Your task to perform on an android device: turn off sleep mode Image 0: 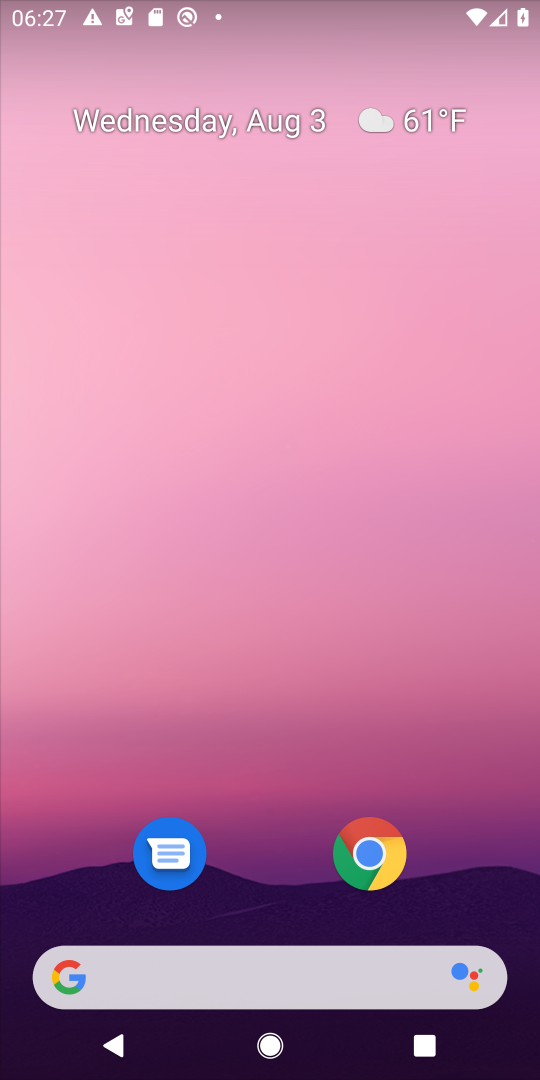
Step 0: drag from (259, 929) to (252, 4)
Your task to perform on an android device: turn off sleep mode Image 1: 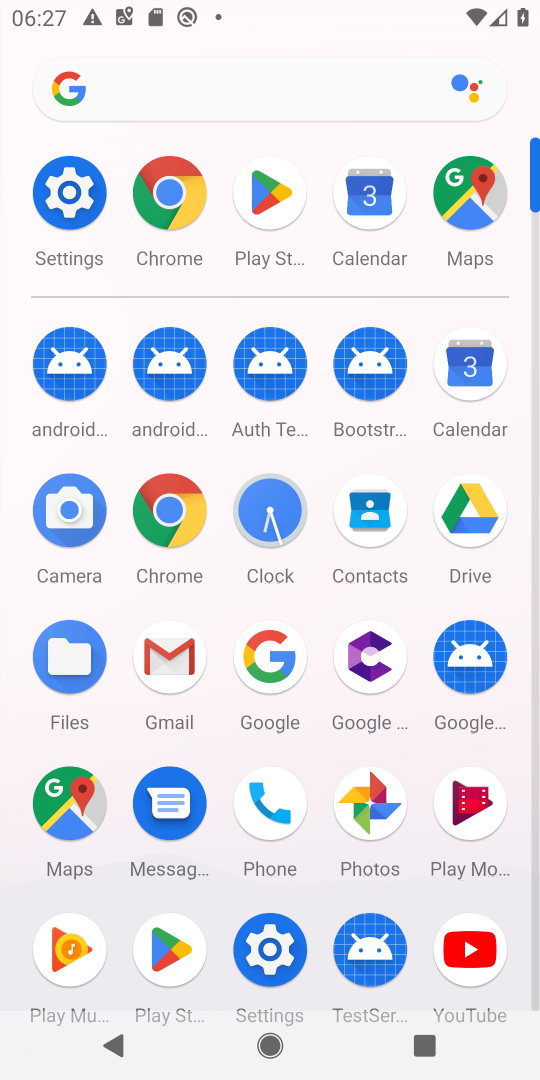
Step 1: click (57, 184)
Your task to perform on an android device: turn off sleep mode Image 2: 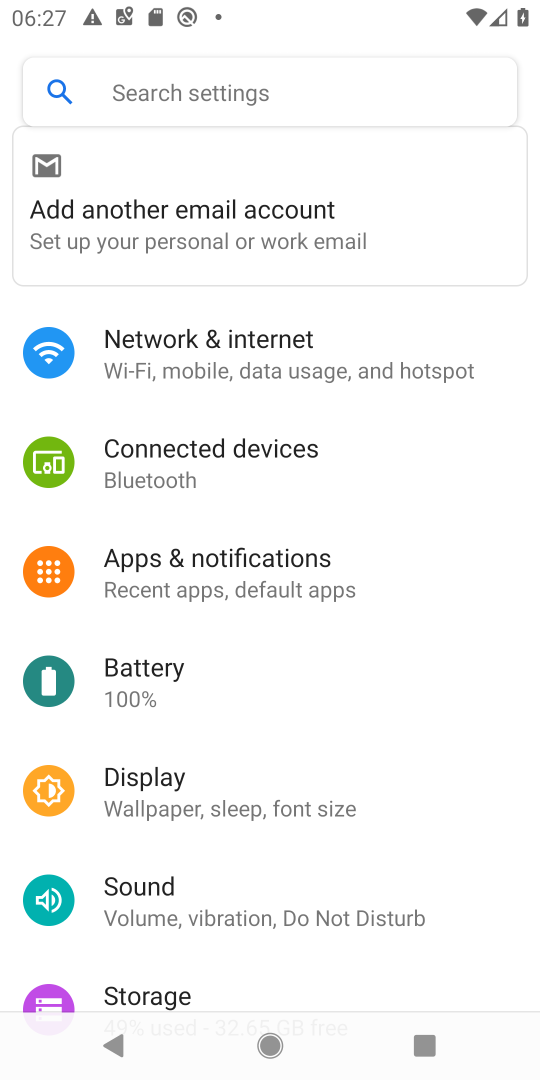
Step 2: click (137, 673)
Your task to perform on an android device: turn off sleep mode Image 3: 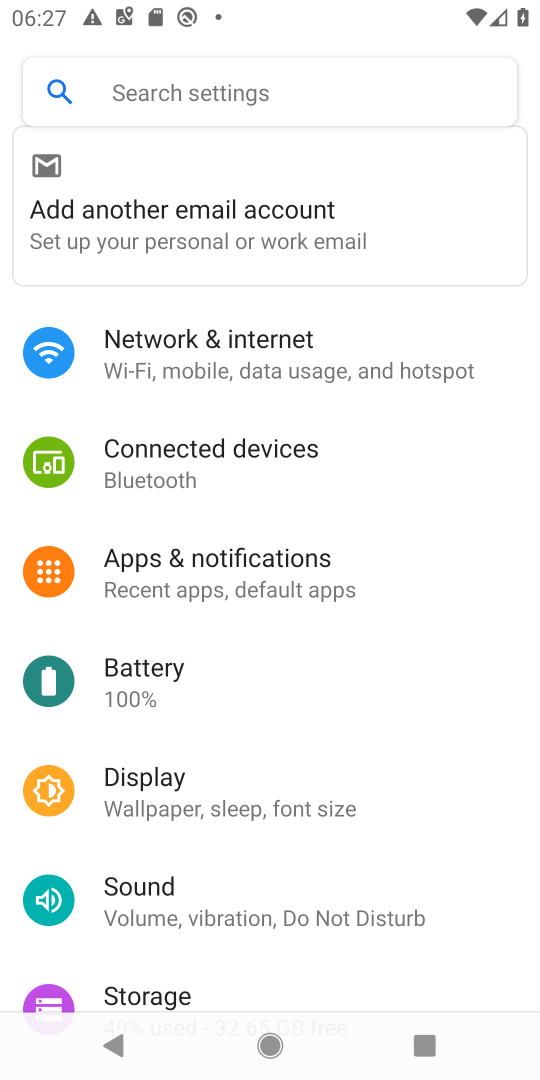
Step 3: click (145, 790)
Your task to perform on an android device: turn off sleep mode Image 4: 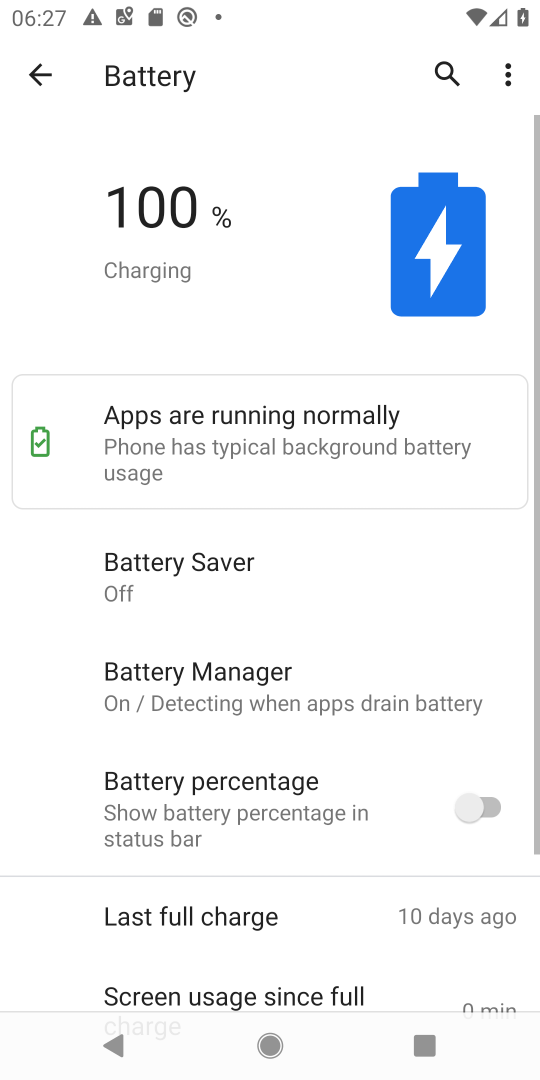
Step 4: click (40, 73)
Your task to perform on an android device: turn off sleep mode Image 5: 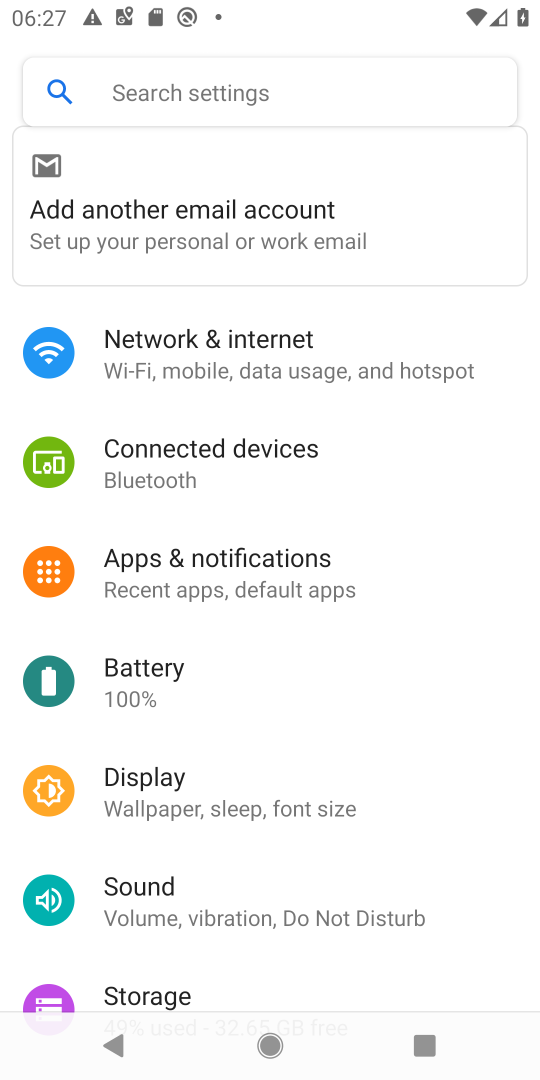
Step 5: click (173, 794)
Your task to perform on an android device: turn off sleep mode Image 6: 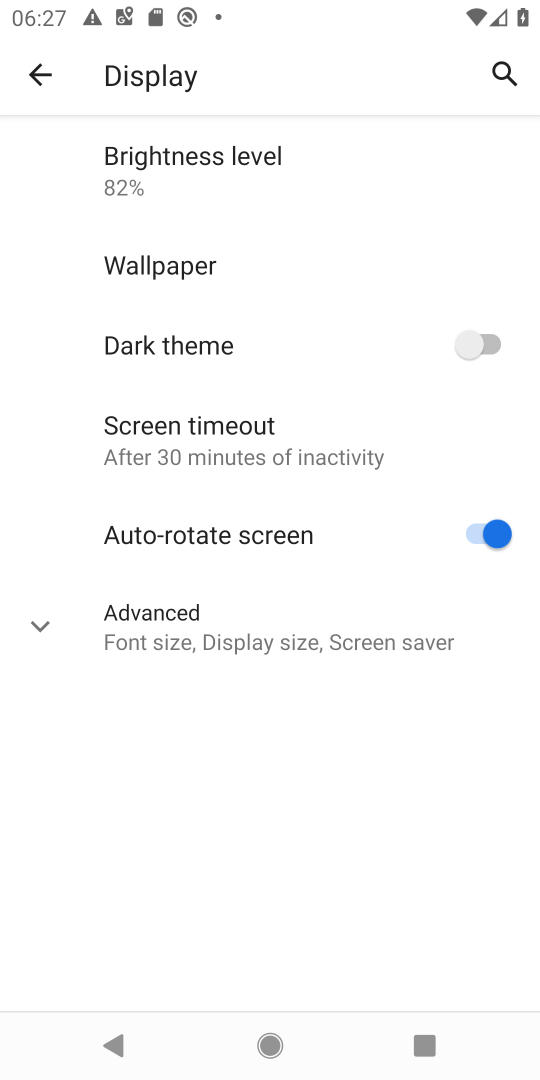
Step 6: task complete